Your task to perform on an android device: Google the capital of Panama Image 0: 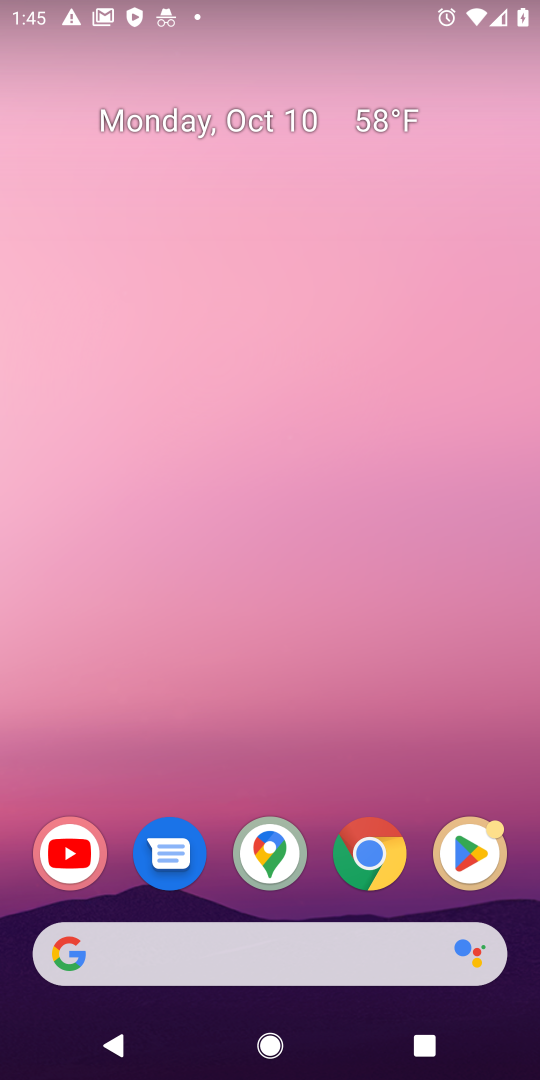
Step 0: click (386, 881)
Your task to perform on an android device: Google the capital of Panama Image 1: 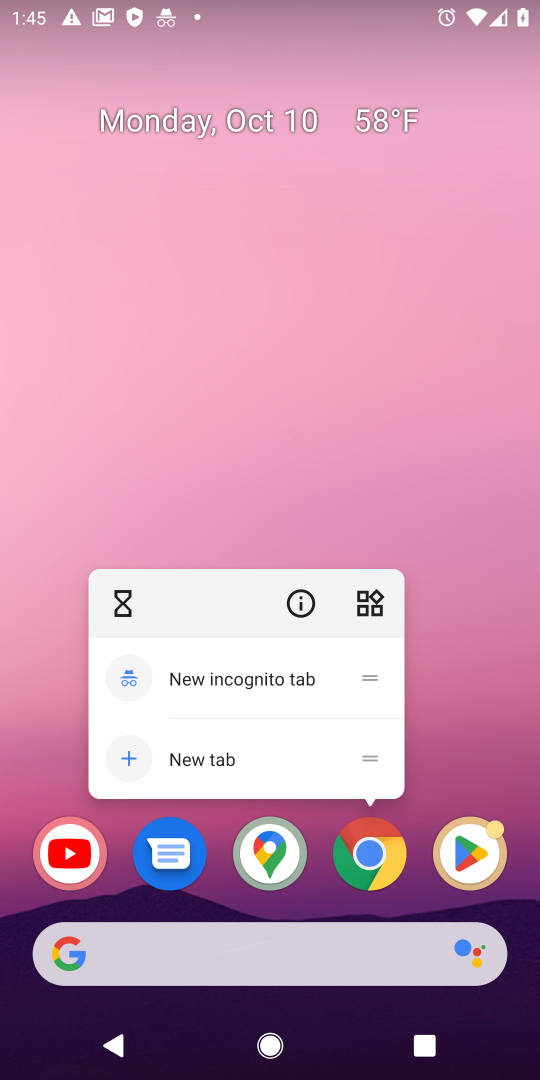
Step 1: click (352, 857)
Your task to perform on an android device: Google the capital of Panama Image 2: 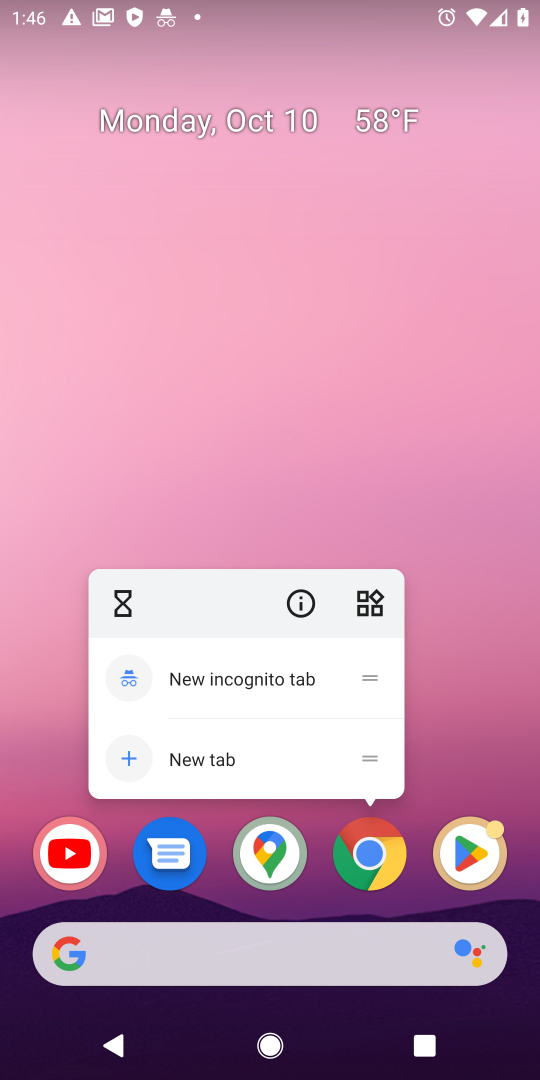
Step 2: click (357, 869)
Your task to perform on an android device: Google the capital of Panama Image 3: 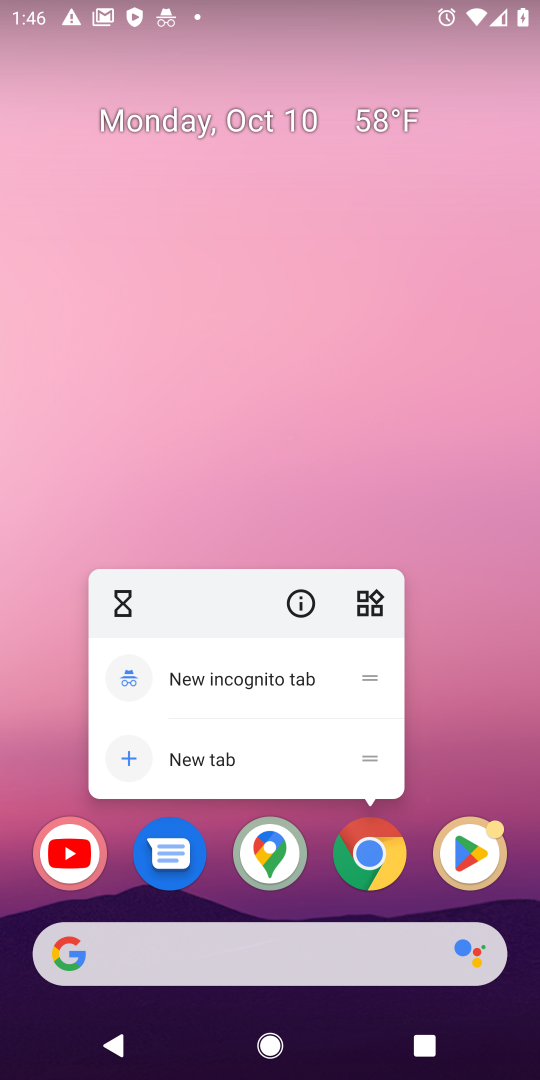
Step 3: click (357, 869)
Your task to perform on an android device: Google the capital of Panama Image 4: 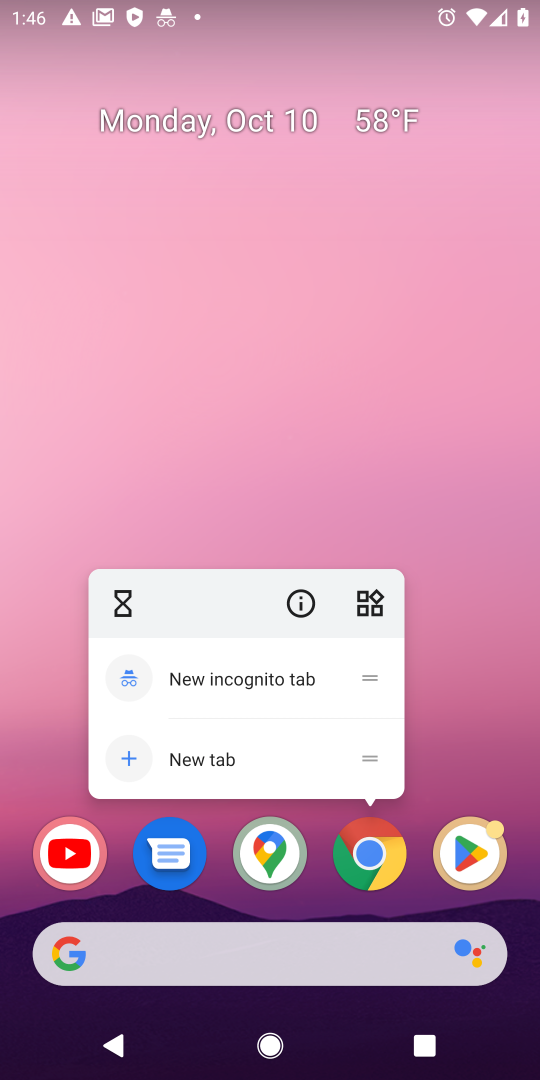
Step 4: click (357, 869)
Your task to perform on an android device: Google the capital of Panama Image 5: 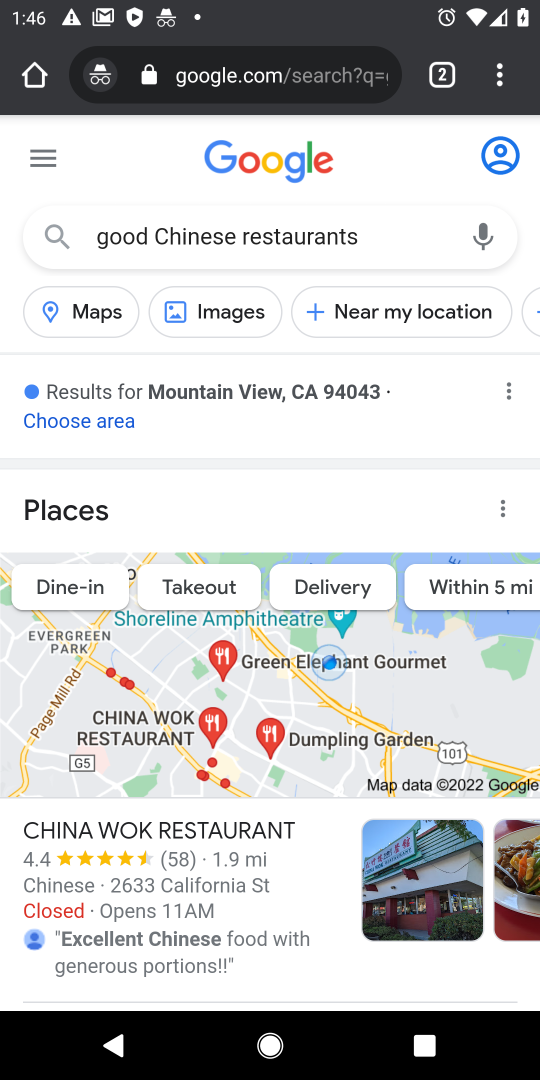
Step 5: click (363, 232)
Your task to perform on an android device: Google the capital of Panama Image 6: 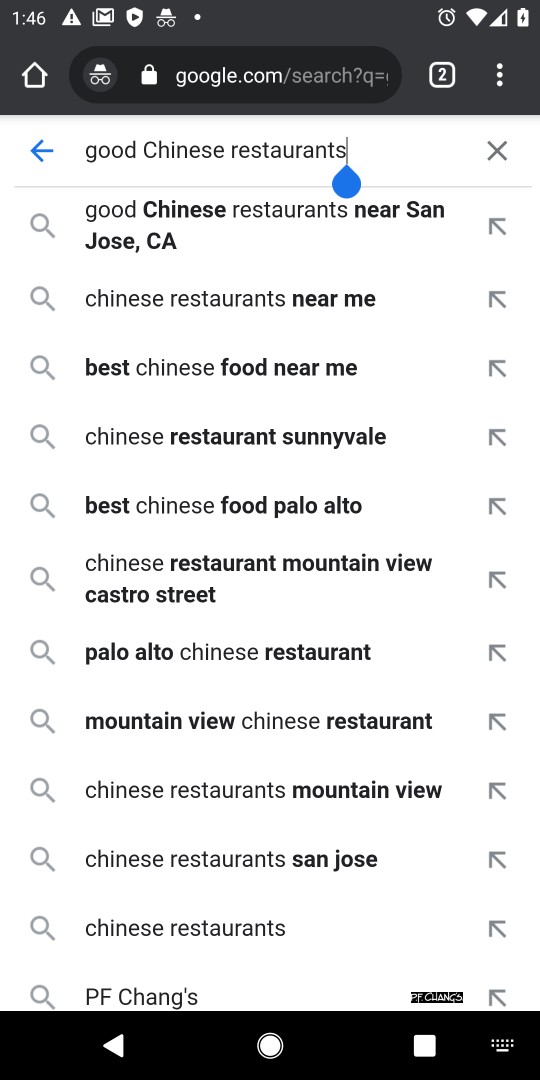
Step 6: click (503, 159)
Your task to perform on an android device: Google the capital of Panama Image 7: 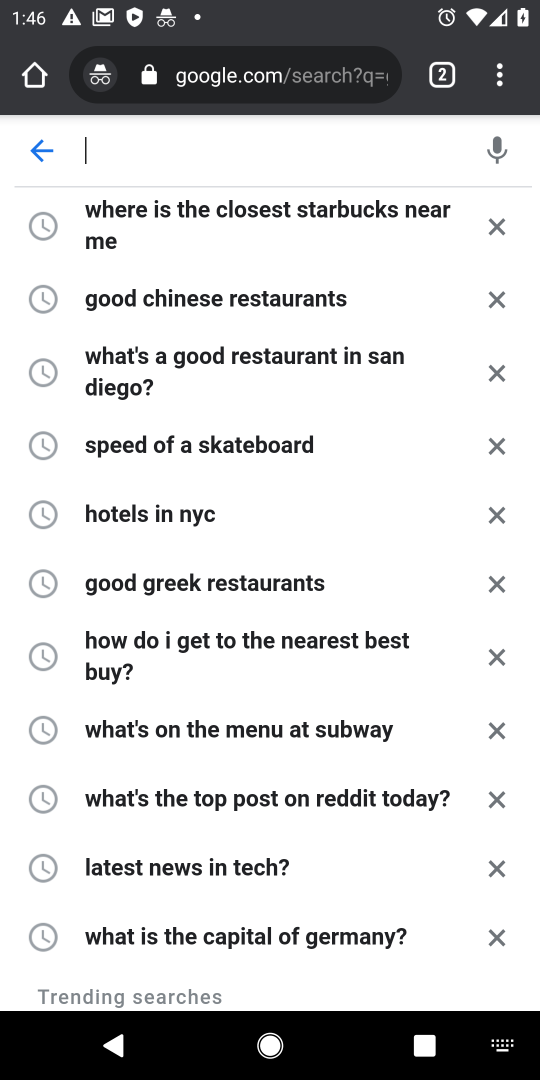
Step 7: type "capital of Panama"
Your task to perform on an android device: Google the capital of Panama Image 8: 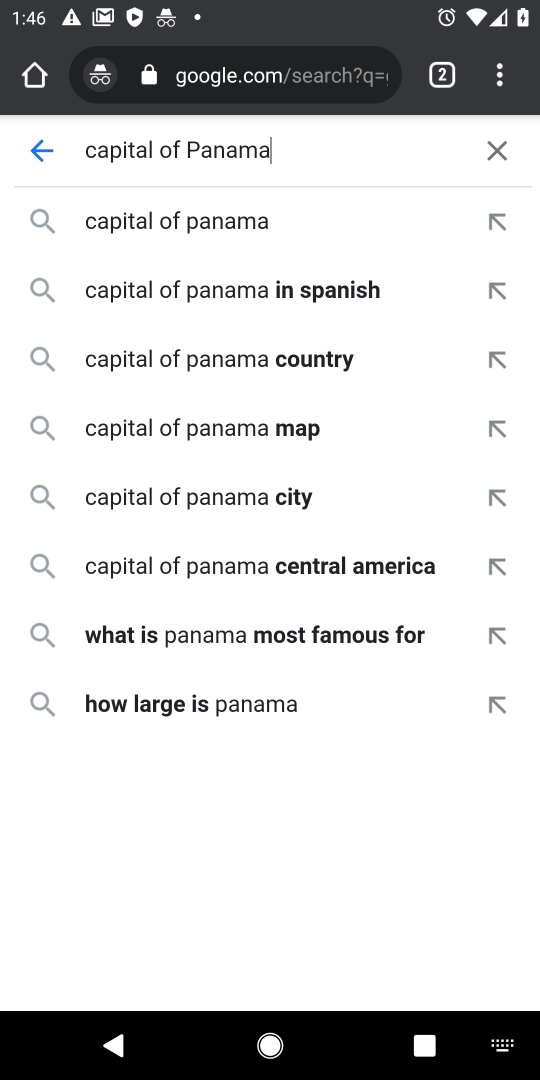
Step 8: click (246, 233)
Your task to perform on an android device: Google the capital of Panama Image 9: 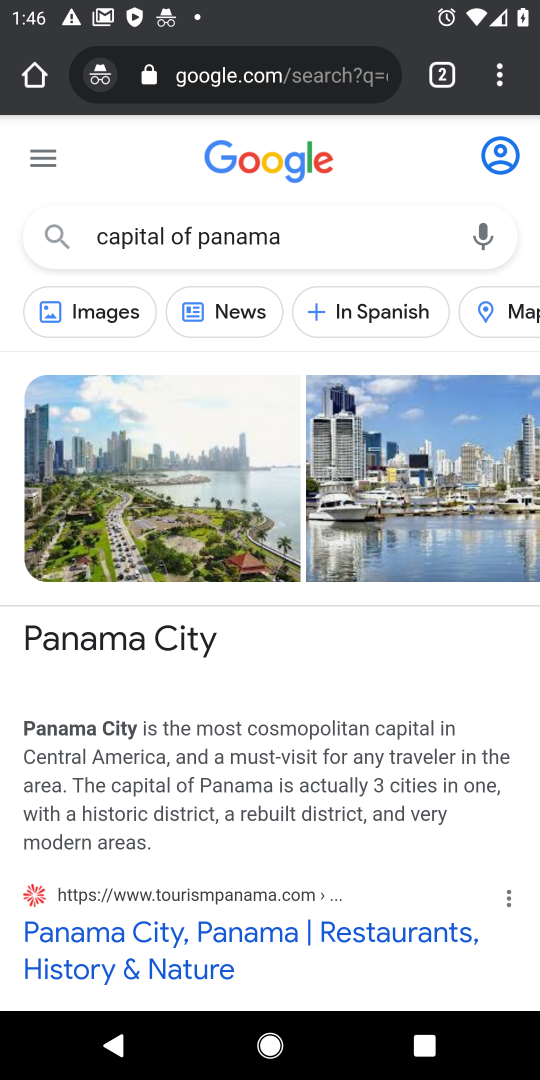
Step 9: task complete